Your task to perform on an android device: Open eBay Image 0: 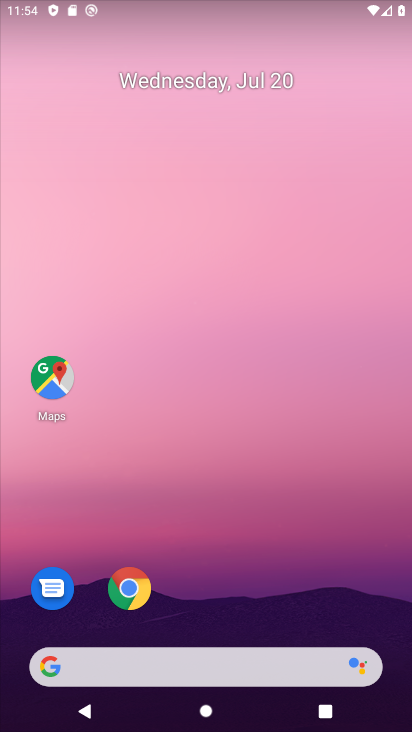
Step 0: click (134, 589)
Your task to perform on an android device: Open eBay Image 1: 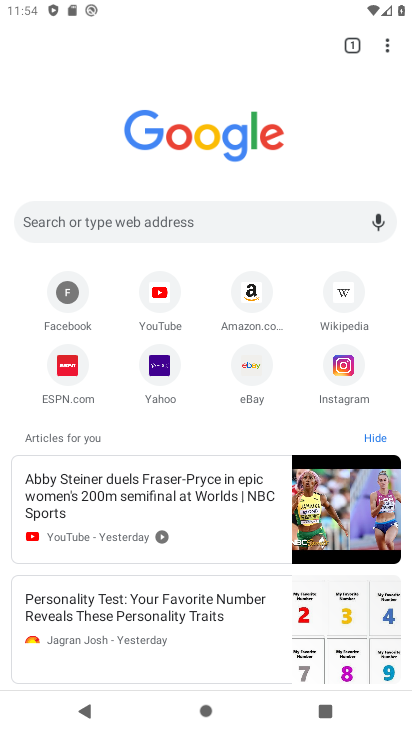
Step 1: click (243, 356)
Your task to perform on an android device: Open eBay Image 2: 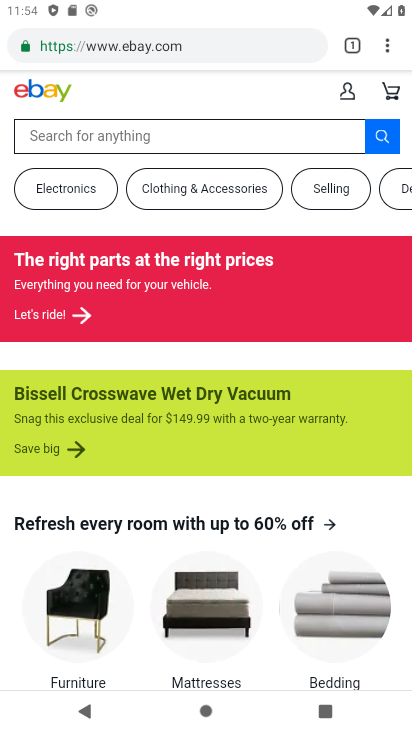
Step 2: task complete